Your task to perform on an android device: see creations saved in the google photos Image 0: 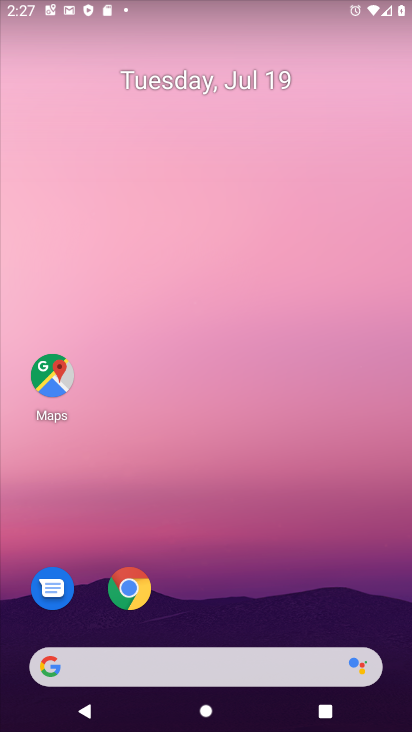
Step 0: drag from (376, 591) to (332, 77)
Your task to perform on an android device: see creations saved in the google photos Image 1: 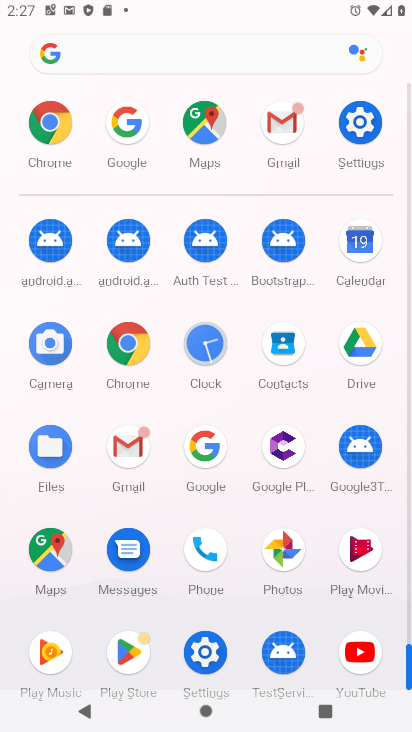
Step 1: click (295, 563)
Your task to perform on an android device: see creations saved in the google photos Image 2: 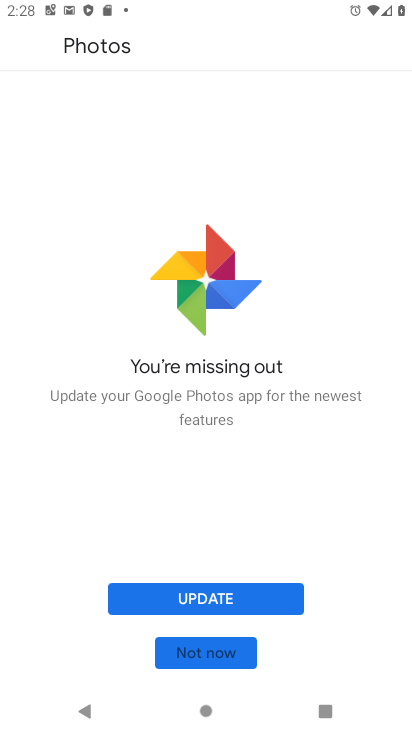
Step 2: task complete